Your task to perform on an android device: turn on wifi Image 0: 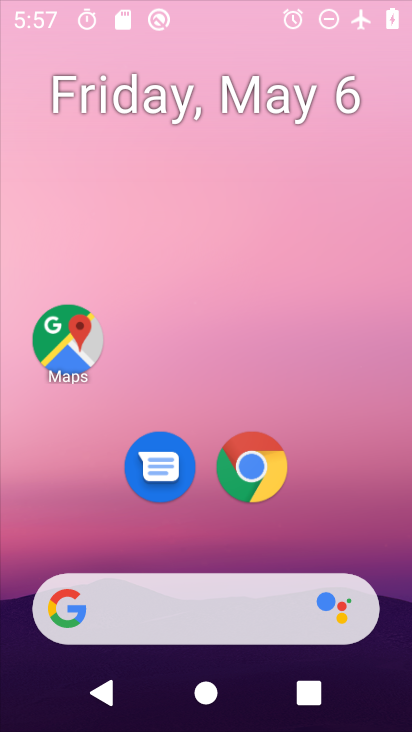
Step 0: click (288, 280)
Your task to perform on an android device: turn on wifi Image 1: 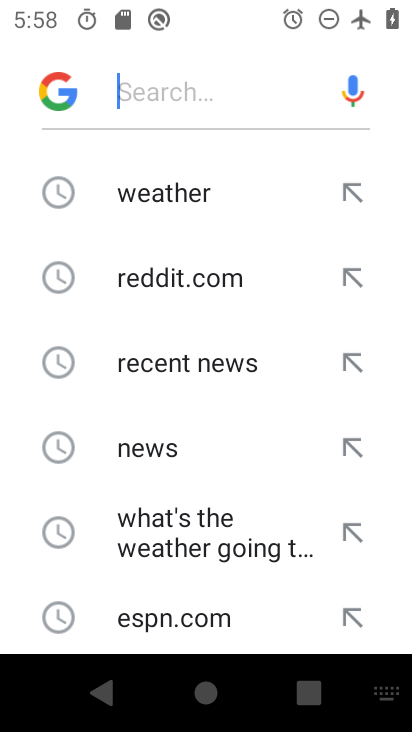
Step 1: press home button
Your task to perform on an android device: turn on wifi Image 2: 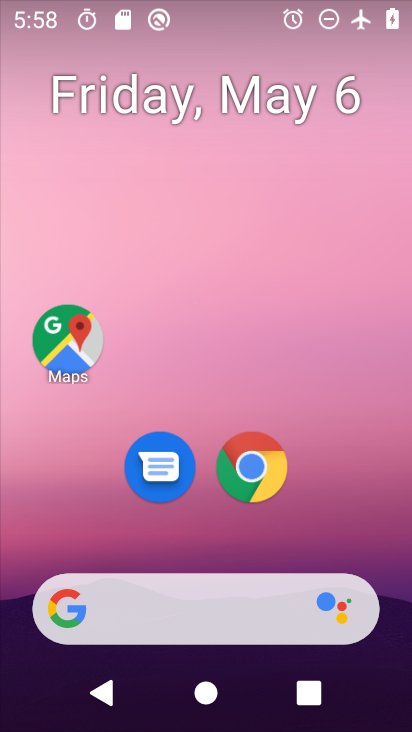
Step 2: drag from (315, 533) to (304, 72)
Your task to perform on an android device: turn on wifi Image 3: 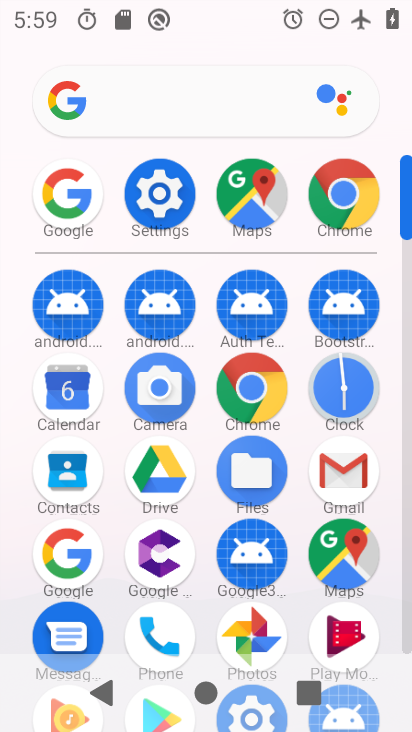
Step 3: click (147, 201)
Your task to perform on an android device: turn on wifi Image 4: 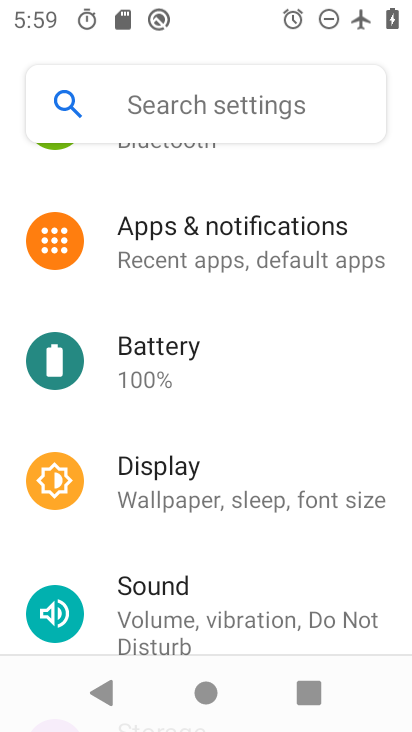
Step 4: drag from (304, 574) to (289, 231)
Your task to perform on an android device: turn on wifi Image 5: 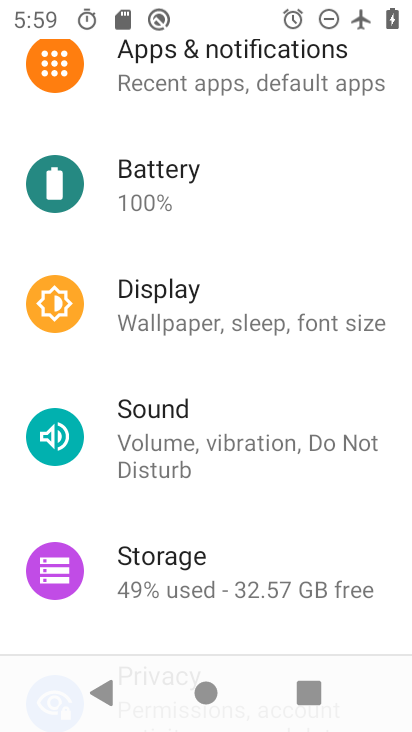
Step 5: drag from (288, 225) to (286, 661)
Your task to perform on an android device: turn on wifi Image 6: 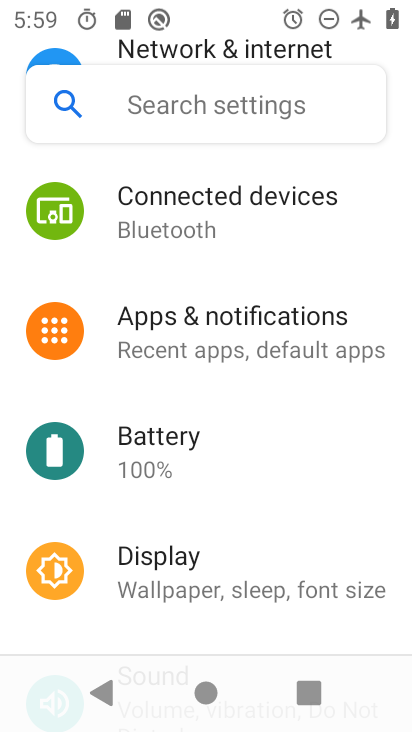
Step 6: drag from (275, 233) to (230, 553)
Your task to perform on an android device: turn on wifi Image 7: 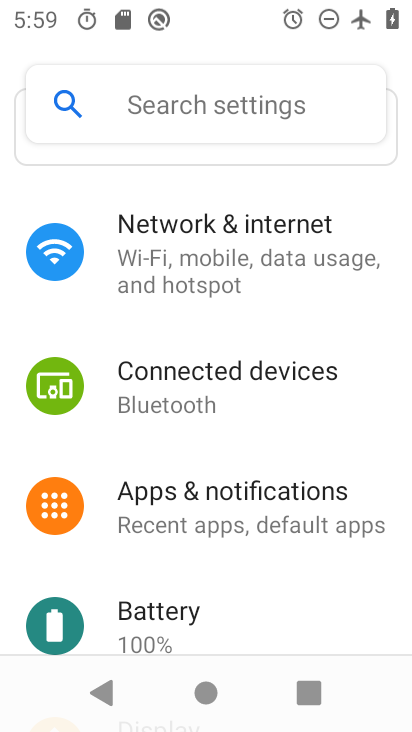
Step 7: click (205, 251)
Your task to perform on an android device: turn on wifi Image 8: 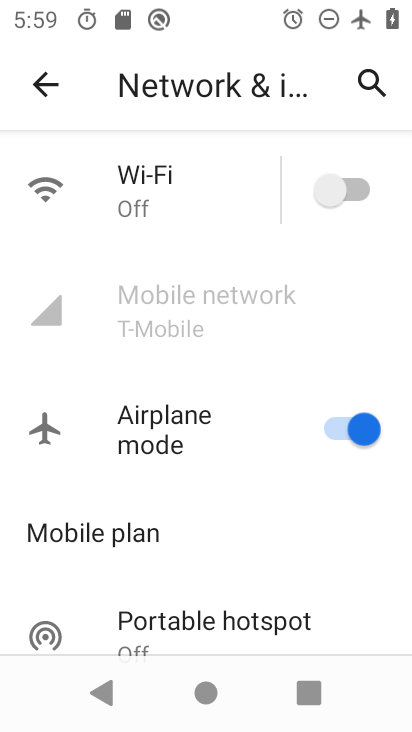
Step 8: click (372, 189)
Your task to perform on an android device: turn on wifi Image 9: 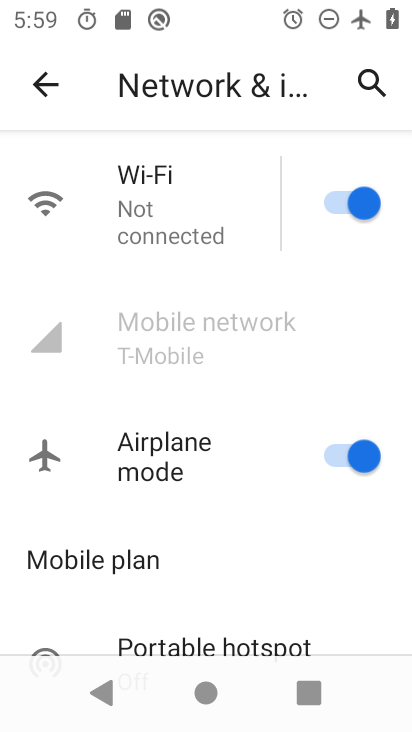
Step 9: task complete